Your task to perform on an android device: What is the news today? Image 0: 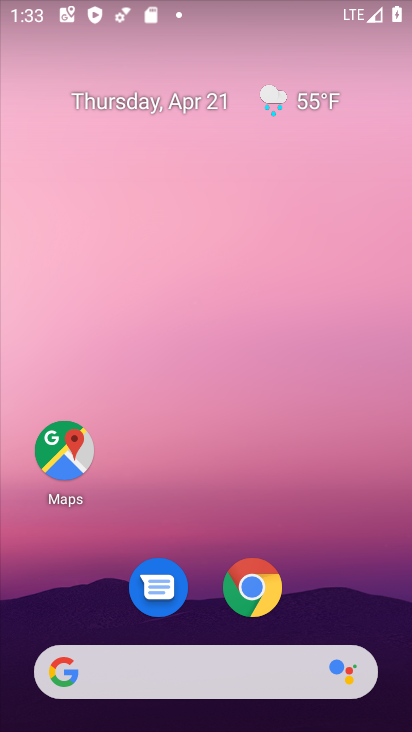
Step 0: drag from (9, 252) to (411, 178)
Your task to perform on an android device: What is the news today? Image 1: 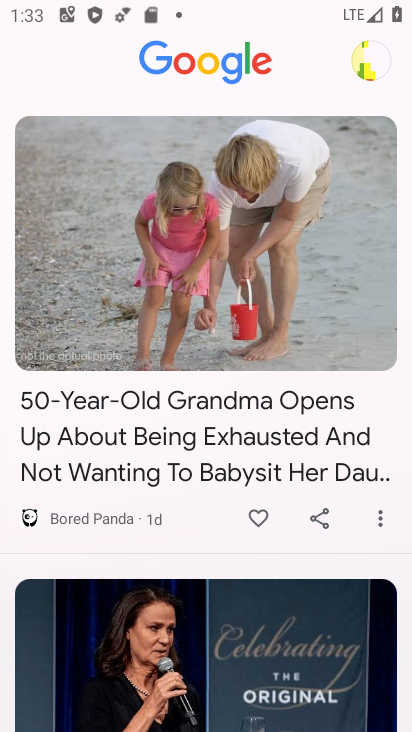
Step 1: task complete